Your task to perform on an android device: toggle pop-ups in chrome Image 0: 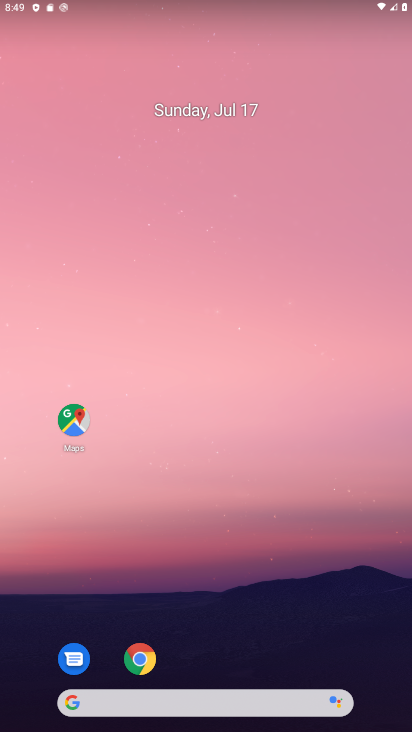
Step 0: click (141, 658)
Your task to perform on an android device: toggle pop-ups in chrome Image 1: 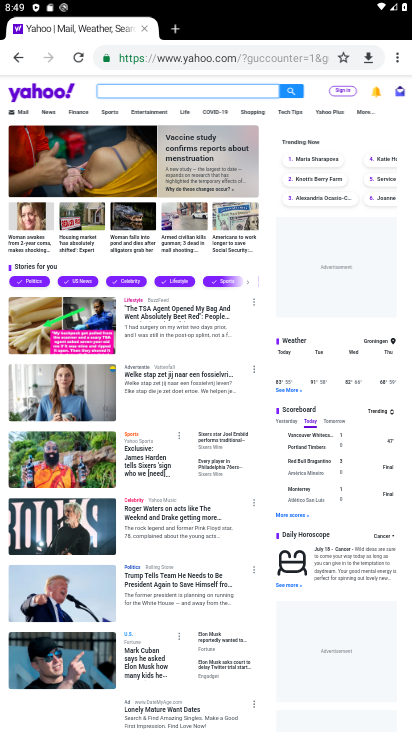
Step 1: click (398, 61)
Your task to perform on an android device: toggle pop-ups in chrome Image 2: 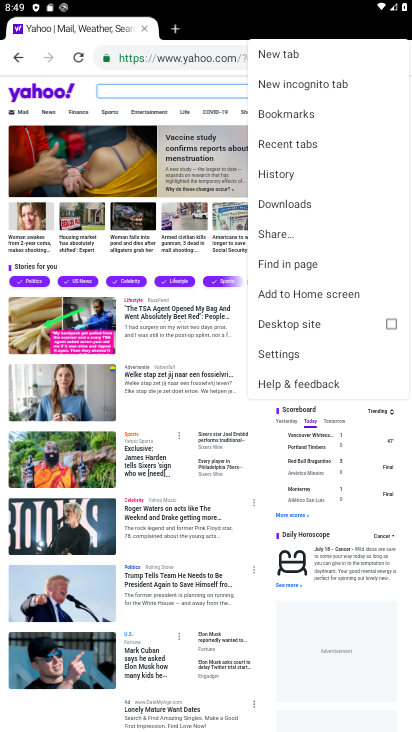
Step 2: click (282, 353)
Your task to perform on an android device: toggle pop-ups in chrome Image 3: 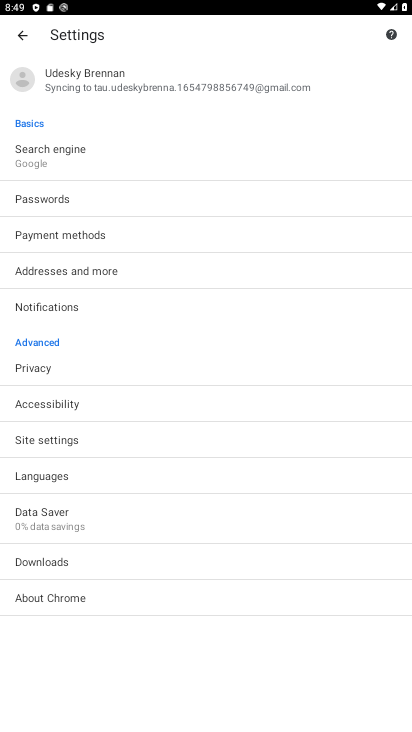
Step 3: click (48, 442)
Your task to perform on an android device: toggle pop-ups in chrome Image 4: 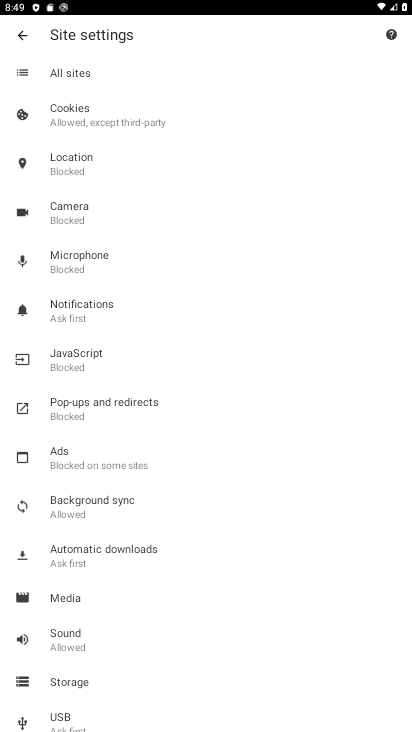
Step 4: click (86, 403)
Your task to perform on an android device: toggle pop-ups in chrome Image 5: 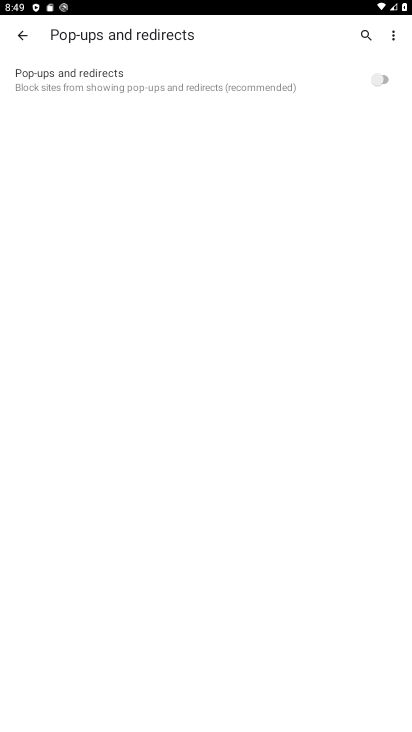
Step 5: click (378, 79)
Your task to perform on an android device: toggle pop-ups in chrome Image 6: 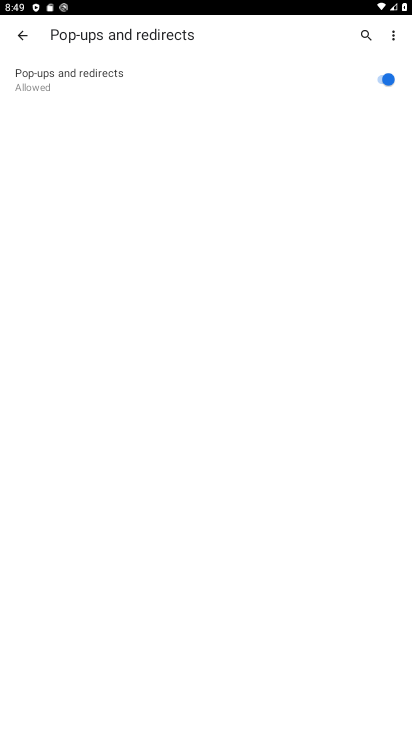
Step 6: task complete